Your task to perform on an android device: turn off notifications settings in the gmail app Image 0: 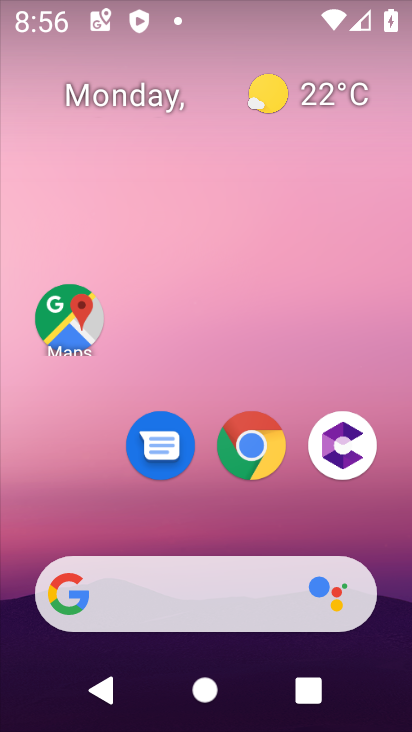
Step 0: drag from (196, 372) to (186, 33)
Your task to perform on an android device: turn off notifications settings in the gmail app Image 1: 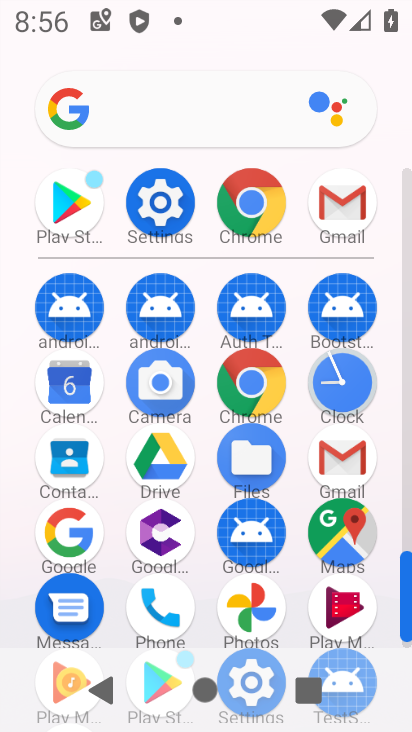
Step 1: click (331, 207)
Your task to perform on an android device: turn off notifications settings in the gmail app Image 2: 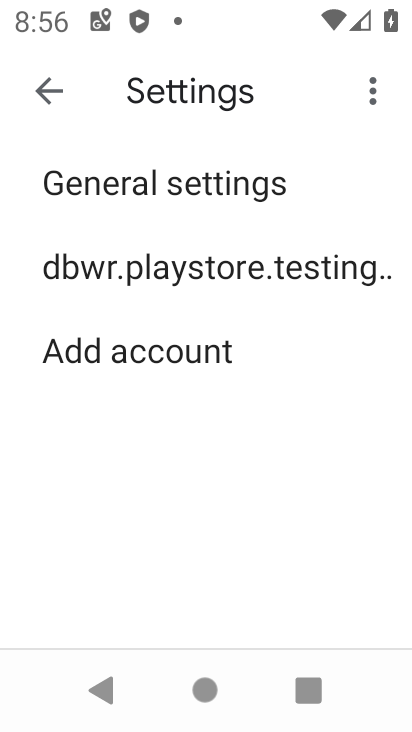
Step 2: click (108, 267)
Your task to perform on an android device: turn off notifications settings in the gmail app Image 3: 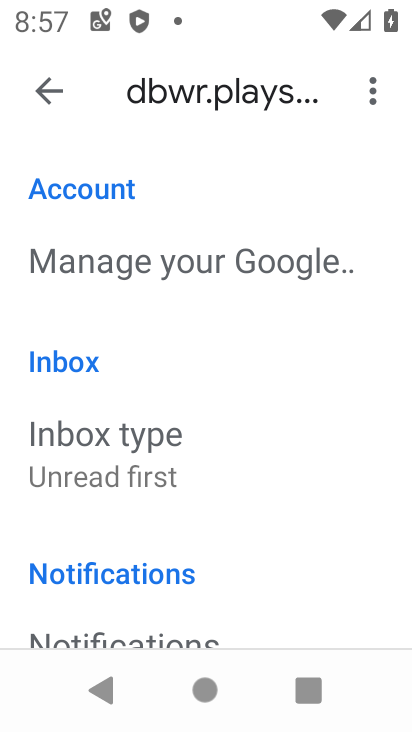
Step 3: drag from (329, 568) to (316, 242)
Your task to perform on an android device: turn off notifications settings in the gmail app Image 4: 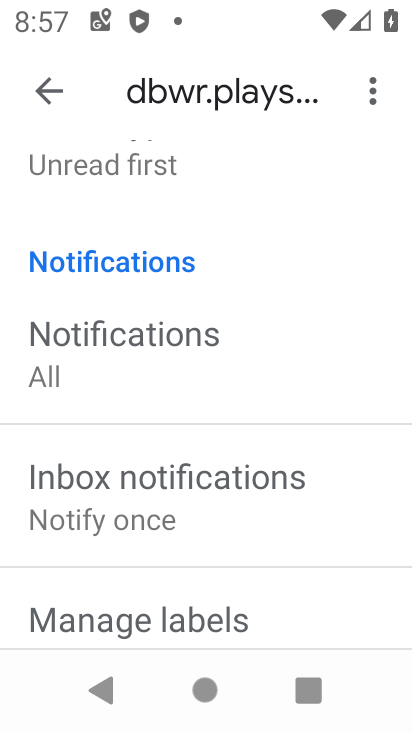
Step 4: drag from (363, 535) to (333, 182)
Your task to perform on an android device: turn off notifications settings in the gmail app Image 5: 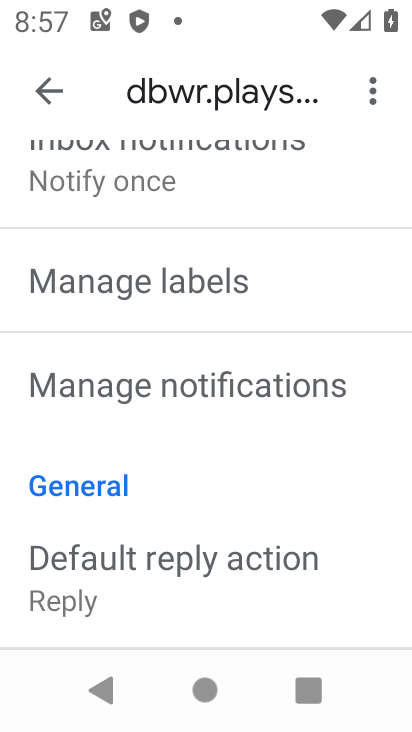
Step 5: click (263, 382)
Your task to perform on an android device: turn off notifications settings in the gmail app Image 6: 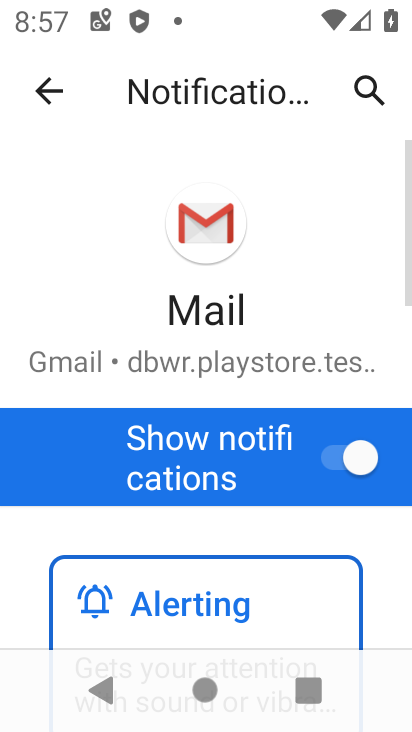
Step 6: click (370, 455)
Your task to perform on an android device: turn off notifications settings in the gmail app Image 7: 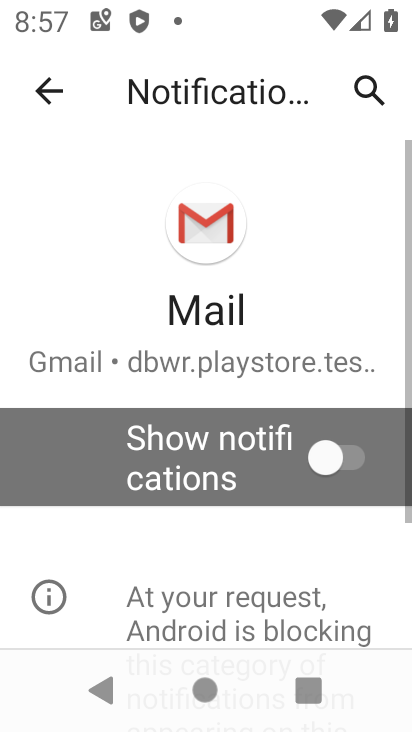
Step 7: task complete